Your task to perform on an android device: Go to Maps Image 0: 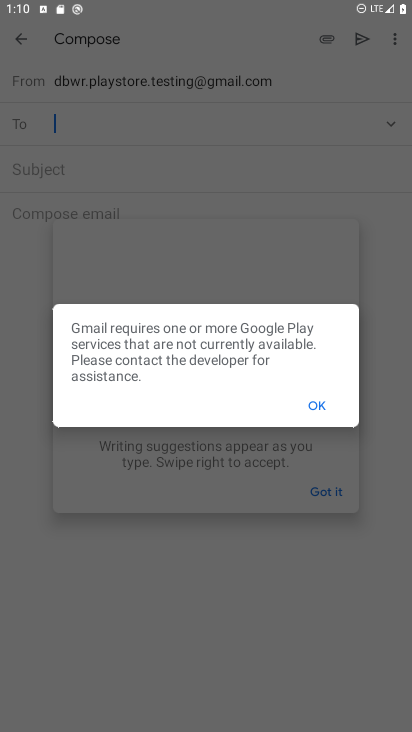
Step 0: press home button
Your task to perform on an android device: Go to Maps Image 1: 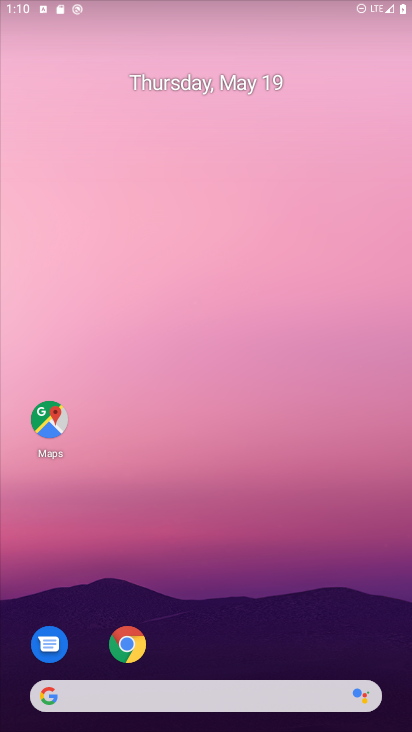
Step 1: drag from (333, 609) to (247, 63)
Your task to perform on an android device: Go to Maps Image 2: 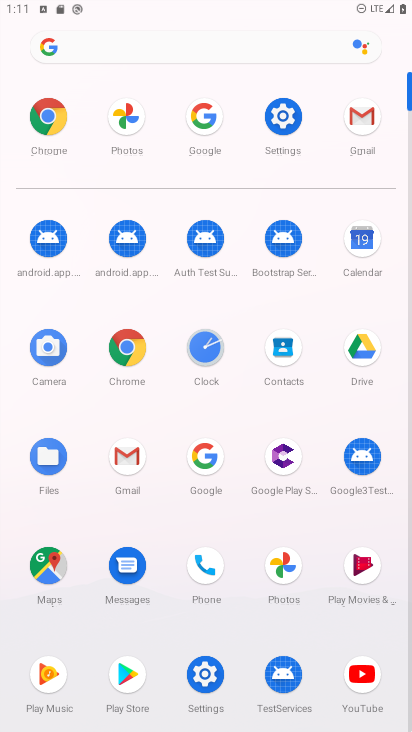
Step 2: click (49, 575)
Your task to perform on an android device: Go to Maps Image 3: 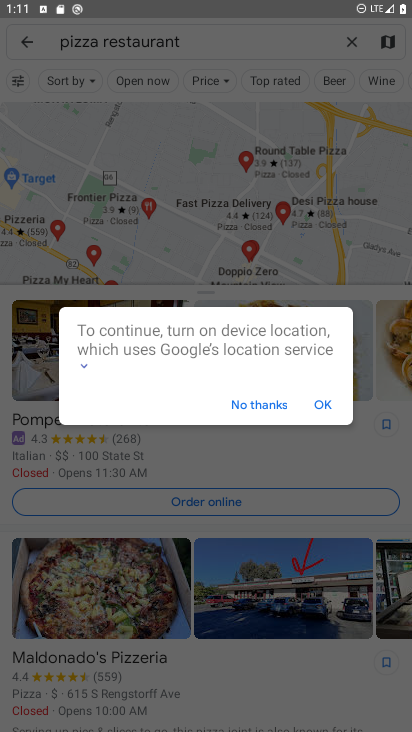
Step 3: click (268, 406)
Your task to perform on an android device: Go to Maps Image 4: 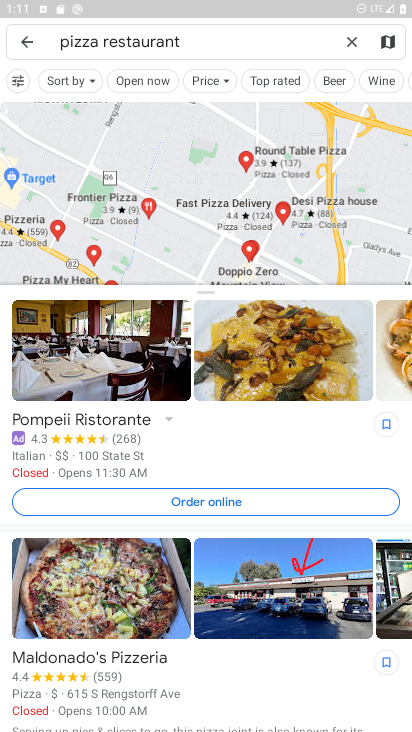
Step 4: click (350, 33)
Your task to perform on an android device: Go to Maps Image 5: 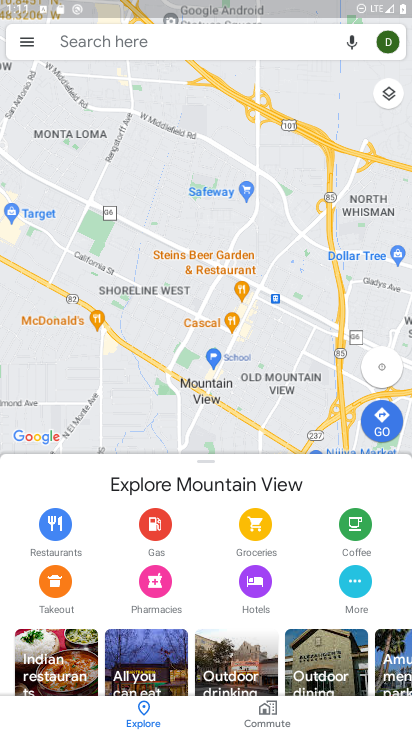
Step 5: task complete